Your task to perform on an android device: Go to Android settings Image 0: 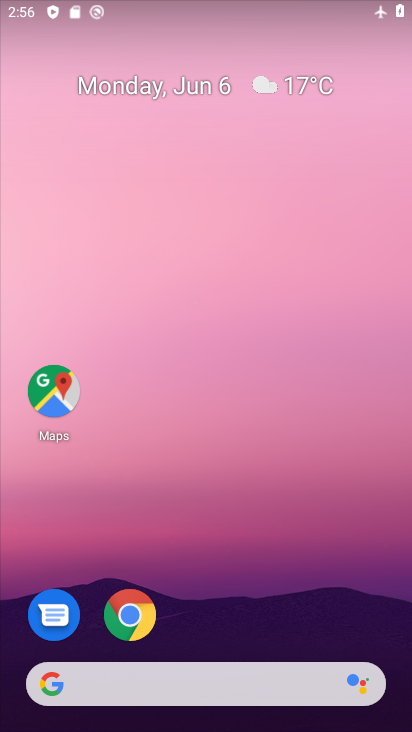
Step 0: drag from (243, 622) to (313, 94)
Your task to perform on an android device: Go to Android settings Image 1: 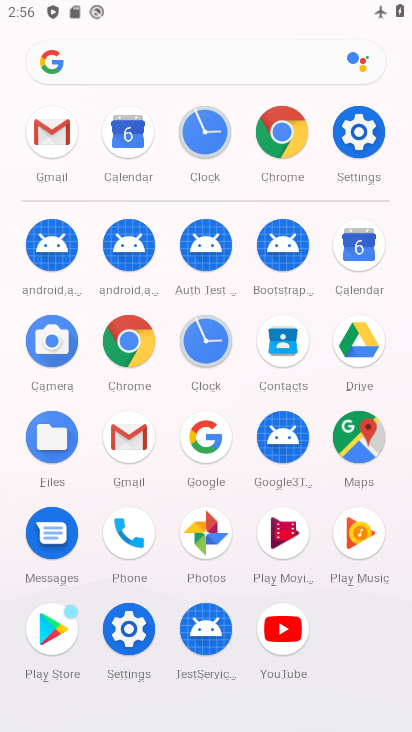
Step 1: click (367, 133)
Your task to perform on an android device: Go to Android settings Image 2: 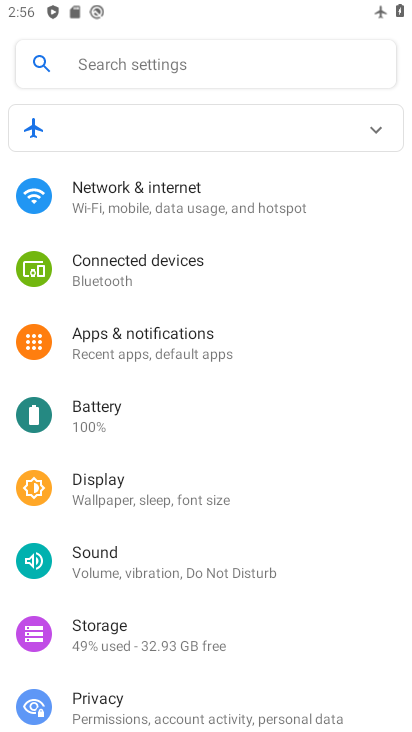
Step 2: drag from (188, 533) to (220, 263)
Your task to perform on an android device: Go to Android settings Image 3: 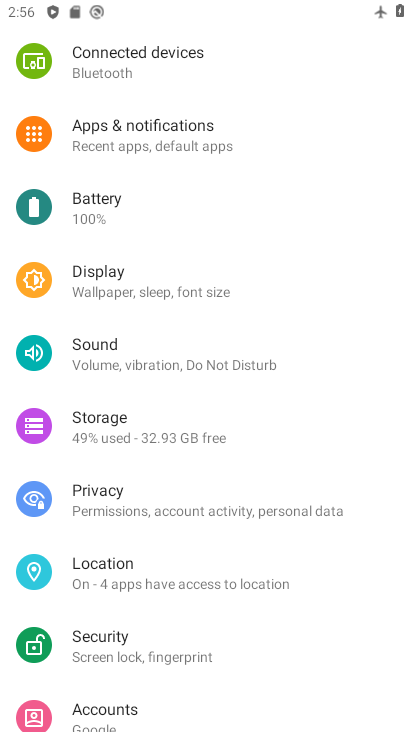
Step 3: drag from (150, 633) to (204, 357)
Your task to perform on an android device: Go to Android settings Image 4: 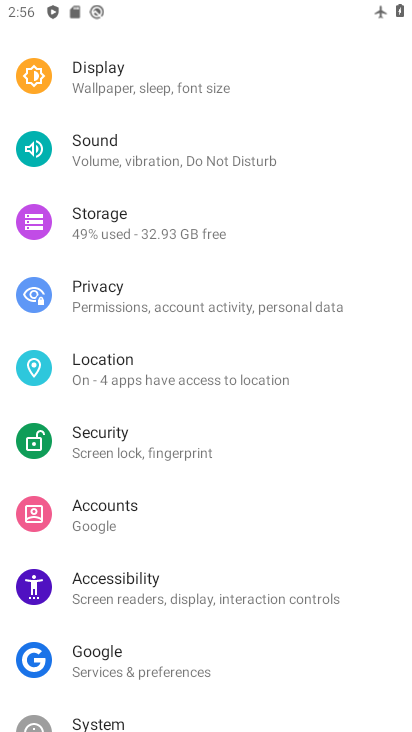
Step 4: click (166, 496)
Your task to perform on an android device: Go to Android settings Image 5: 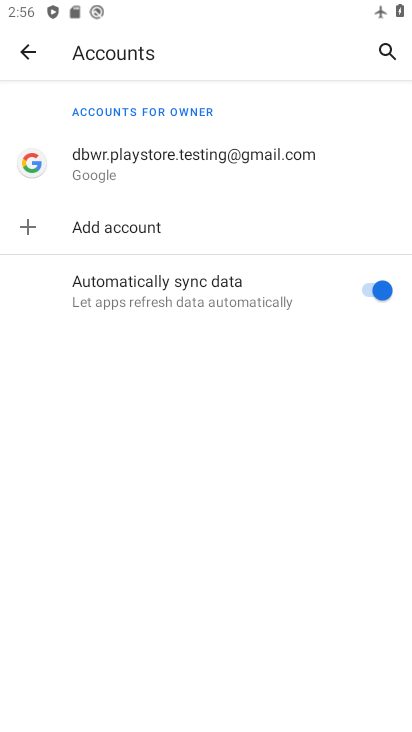
Step 5: click (34, 42)
Your task to perform on an android device: Go to Android settings Image 6: 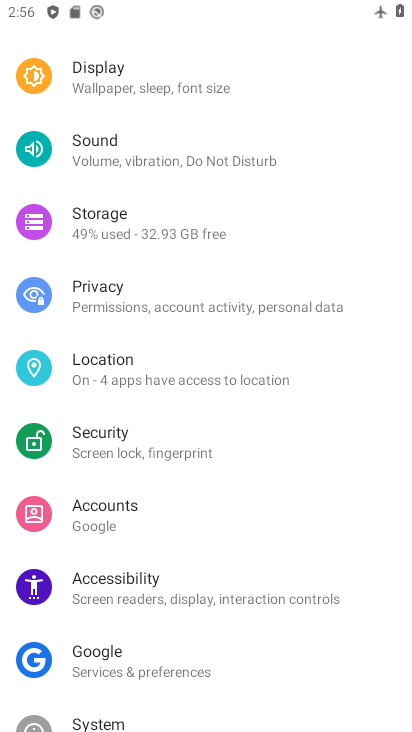
Step 6: drag from (168, 674) to (208, 399)
Your task to perform on an android device: Go to Android settings Image 7: 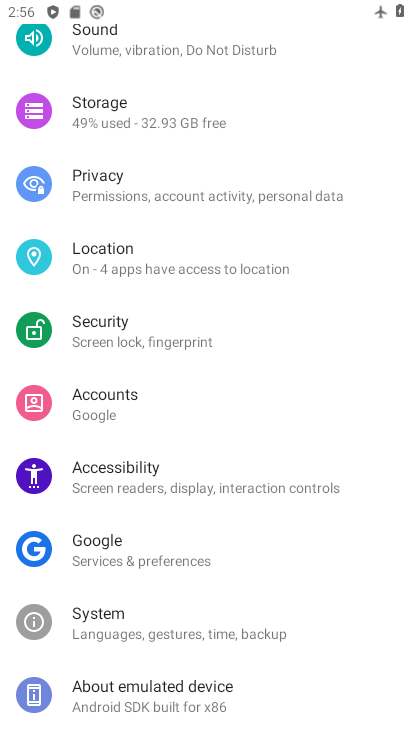
Step 7: click (137, 689)
Your task to perform on an android device: Go to Android settings Image 8: 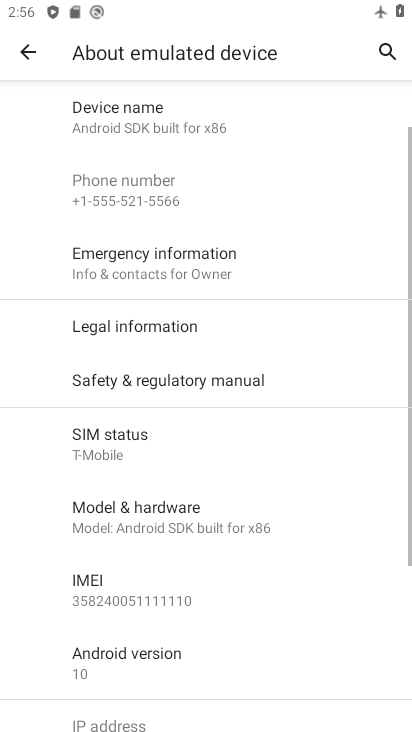
Step 8: drag from (175, 498) to (235, 236)
Your task to perform on an android device: Go to Android settings Image 9: 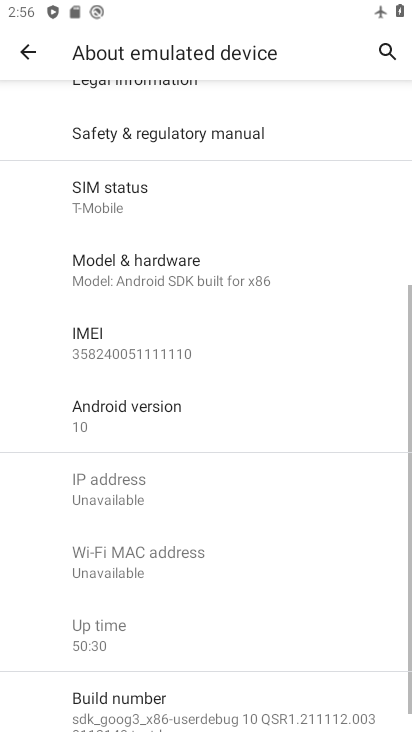
Step 9: click (184, 418)
Your task to perform on an android device: Go to Android settings Image 10: 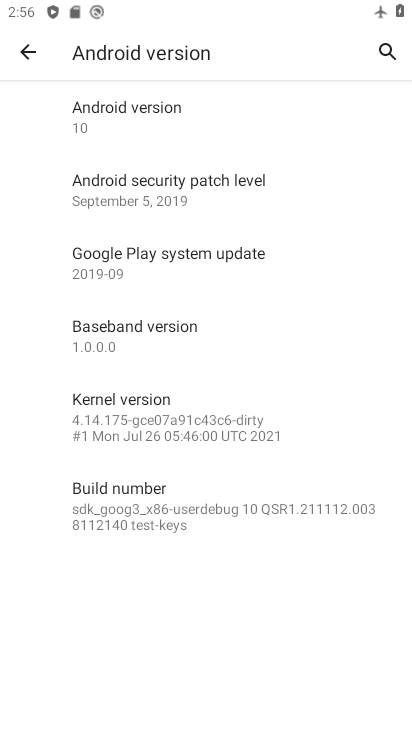
Step 10: task complete